Your task to perform on an android device: see sites visited before in the chrome app Image 0: 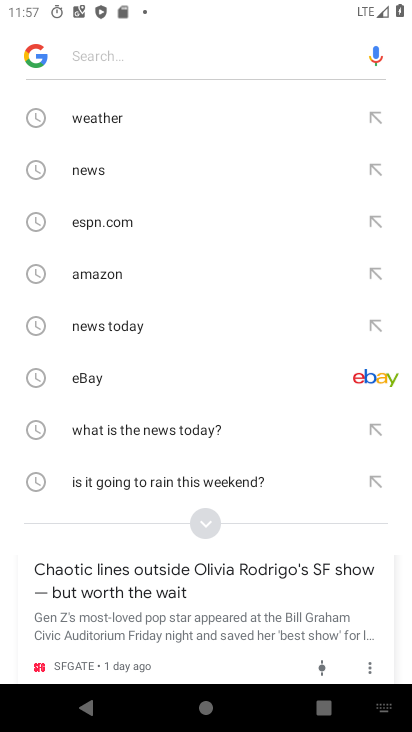
Step 0: press home button
Your task to perform on an android device: see sites visited before in the chrome app Image 1: 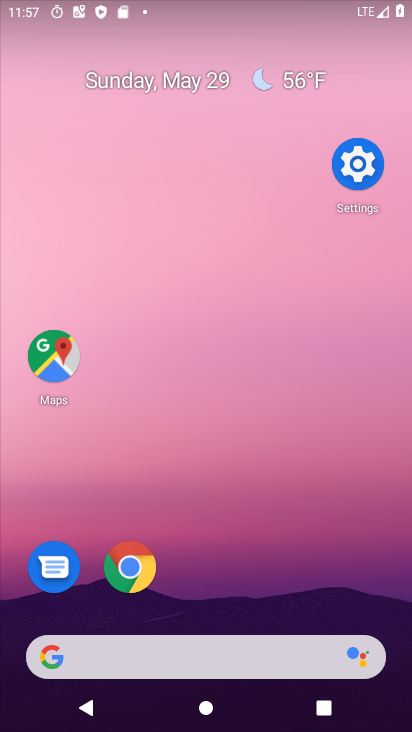
Step 1: drag from (351, 581) to (330, 132)
Your task to perform on an android device: see sites visited before in the chrome app Image 2: 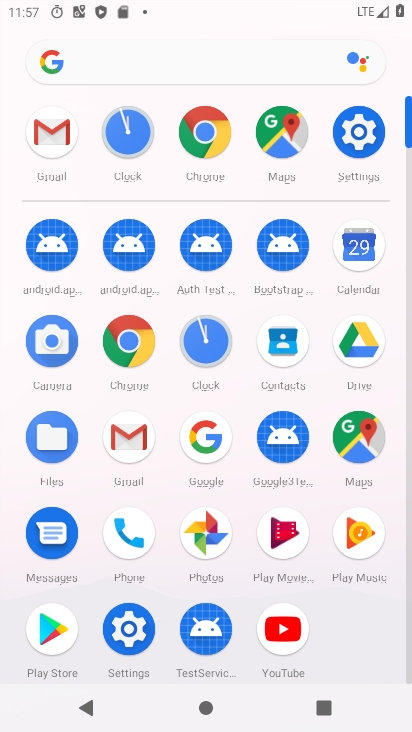
Step 2: click (133, 350)
Your task to perform on an android device: see sites visited before in the chrome app Image 3: 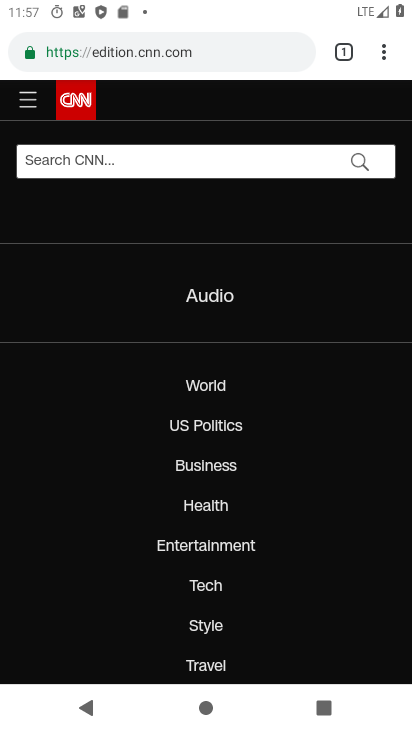
Step 3: task complete